Your task to perform on an android device: Clear the cart on costco.com. Add "corsair k70" to the cart on costco.com, then select checkout. Image 0: 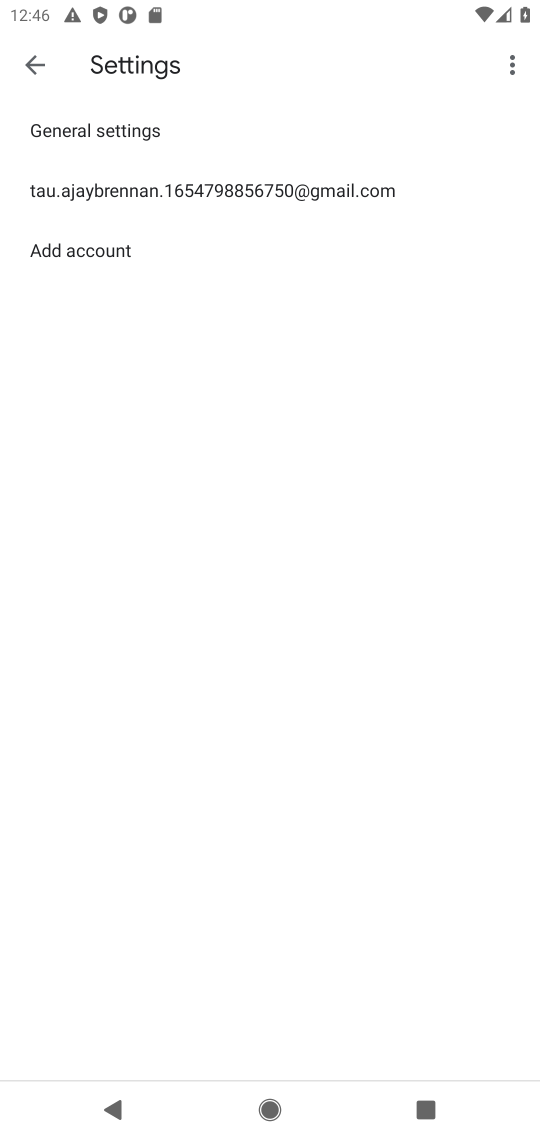
Step 0: press home button
Your task to perform on an android device: Clear the cart on costco.com. Add "corsair k70" to the cart on costco.com, then select checkout. Image 1: 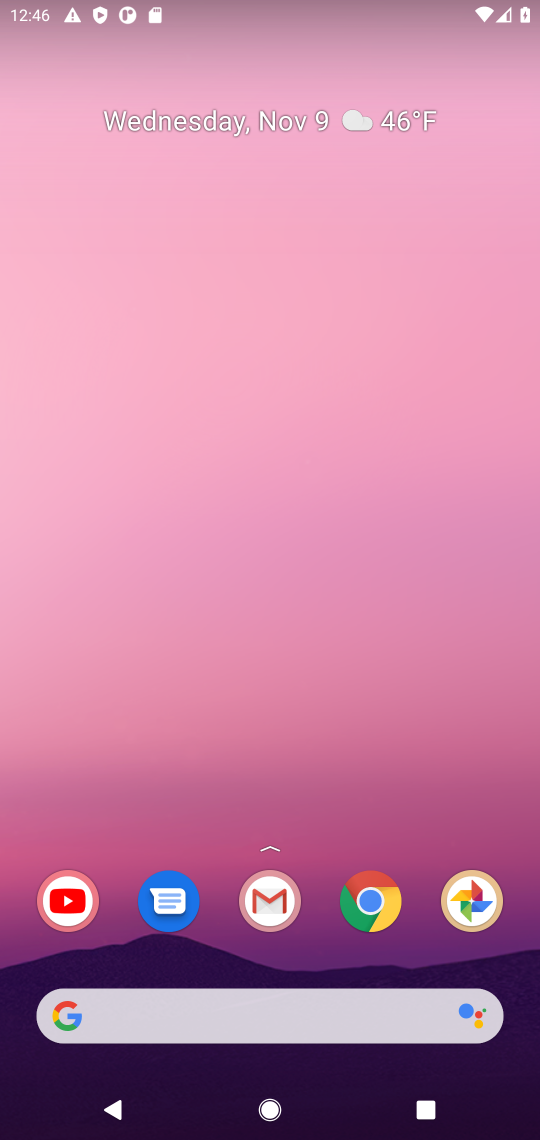
Step 1: click (381, 908)
Your task to perform on an android device: Clear the cart on costco.com. Add "corsair k70" to the cart on costco.com, then select checkout. Image 2: 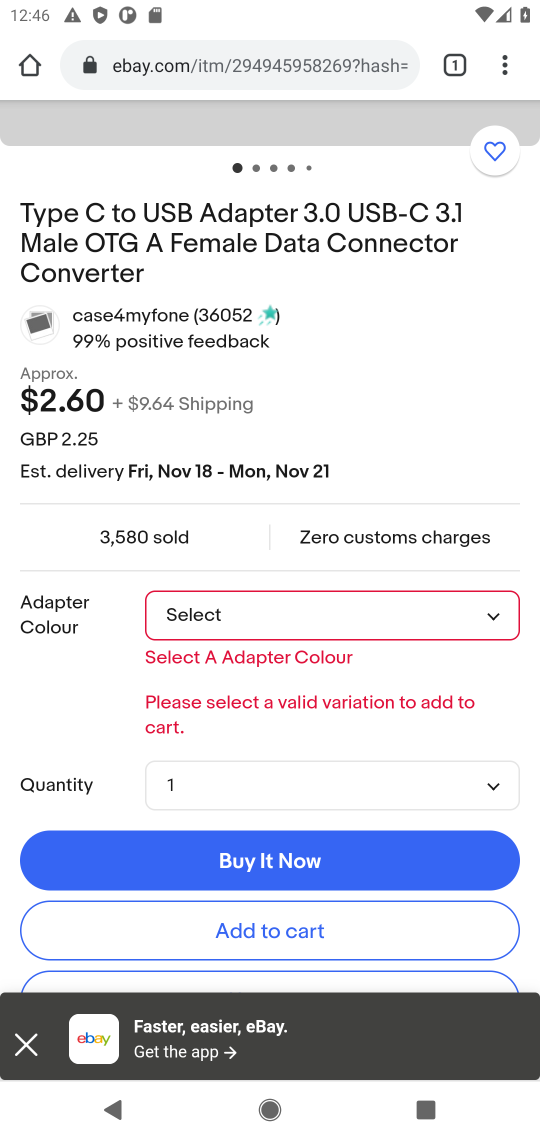
Step 2: click (306, 58)
Your task to perform on an android device: Clear the cart on costco.com. Add "corsair k70" to the cart on costco.com, then select checkout. Image 3: 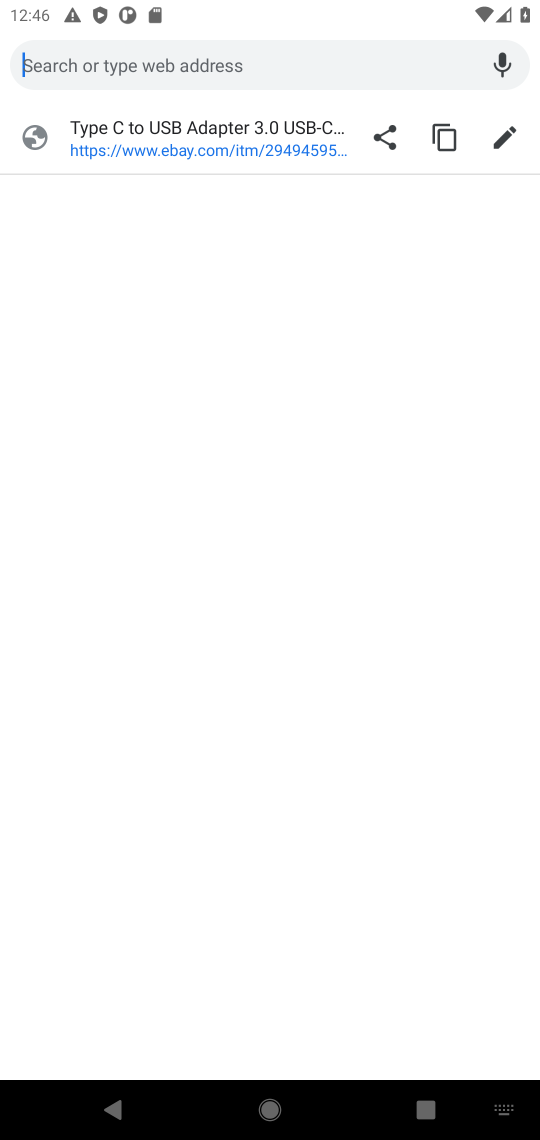
Step 3: type "costco.com"
Your task to perform on an android device: Clear the cart on costco.com. Add "corsair k70" to the cart on costco.com, then select checkout. Image 4: 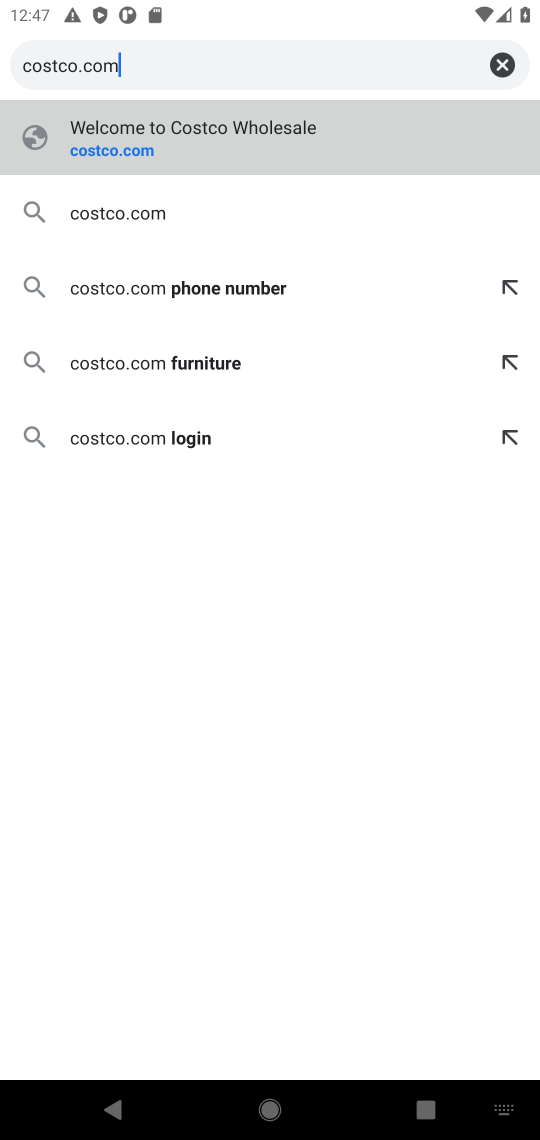
Step 4: click (128, 207)
Your task to perform on an android device: Clear the cart on costco.com. Add "corsair k70" to the cart on costco.com, then select checkout. Image 5: 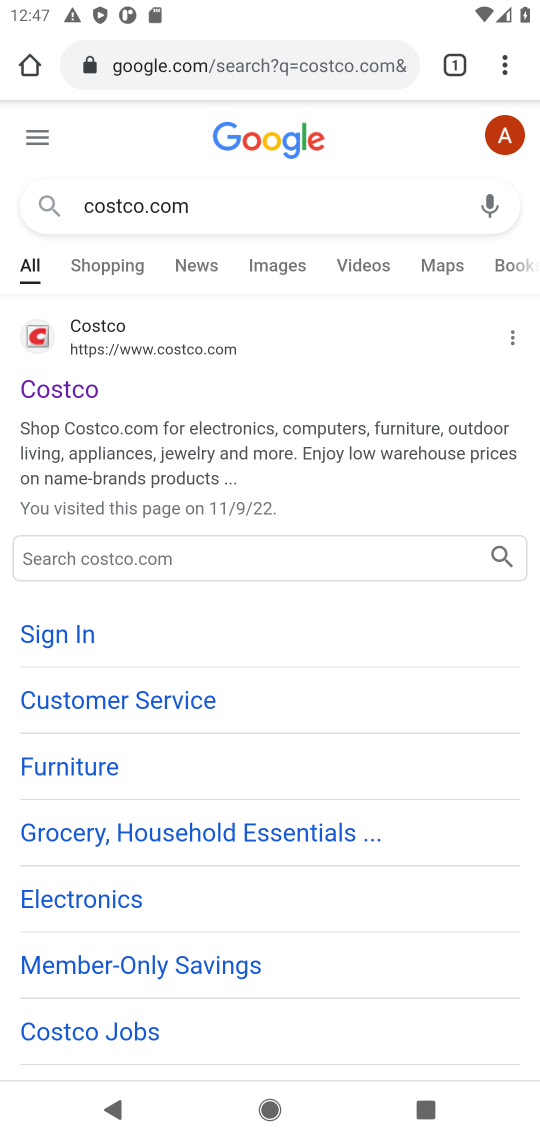
Step 5: click (115, 335)
Your task to perform on an android device: Clear the cart on costco.com. Add "corsair k70" to the cart on costco.com, then select checkout. Image 6: 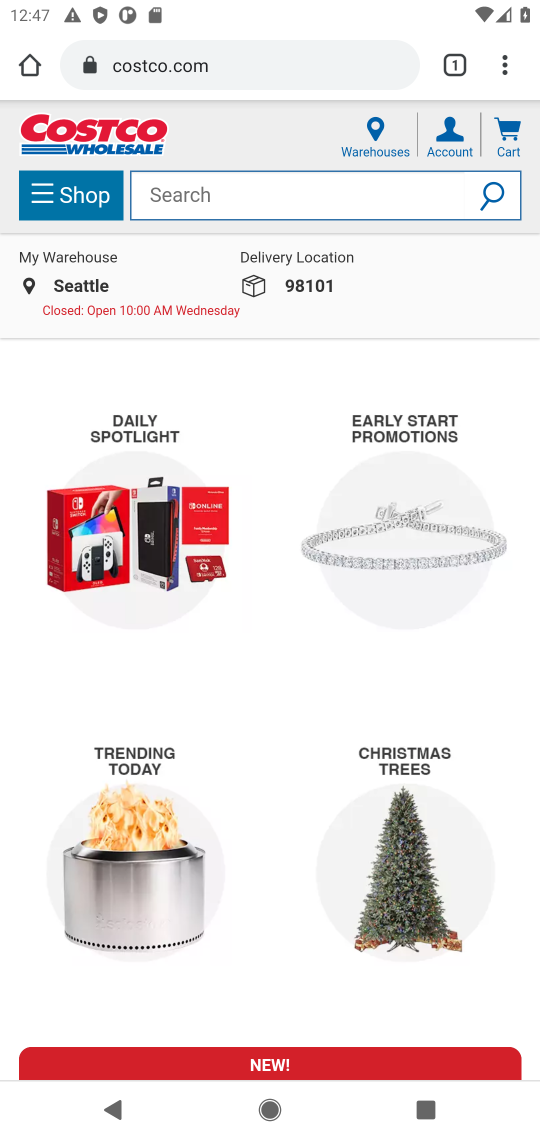
Step 6: click (276, 193)
Your task to perform on an android device: Clear the cart on costco.com. Add "corsair k70" to the cart on costco.com, then select checkout. Image 7: 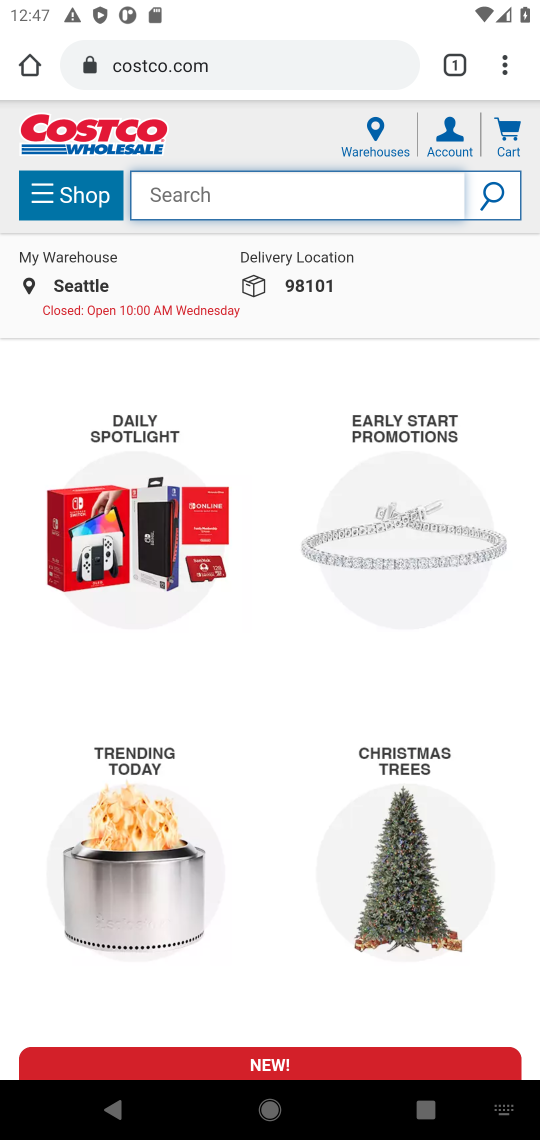
Step 7: type "corsair k70"
Your task to perform on an android device: Clear the cart on costco.com. Add "corsair k70" to the cart on costco.com, then select checkout. Image 8: 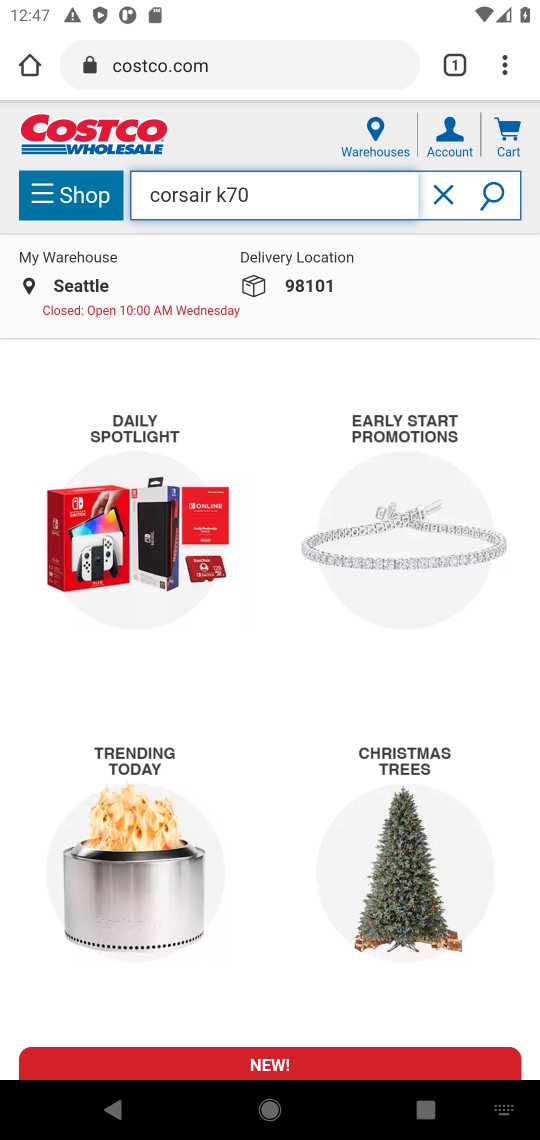
Step 8: click (400, 274)
Your task to perform on an android device: Clear the cart on costco.com. Add "corsair k70" to the cart on costco.com, then select checkout. Image 9: 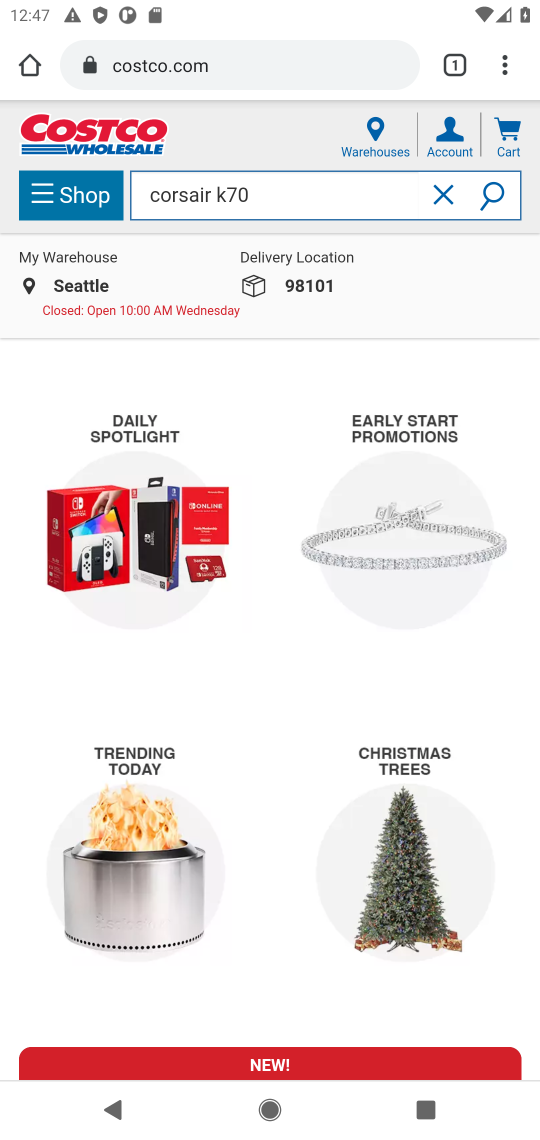
Step 9: click (436, 277)
Your task to perform on an android device: Clear the cart on costco.com. Add "corsair k70" to the cart on costco.com, then select checkout. Image 10: 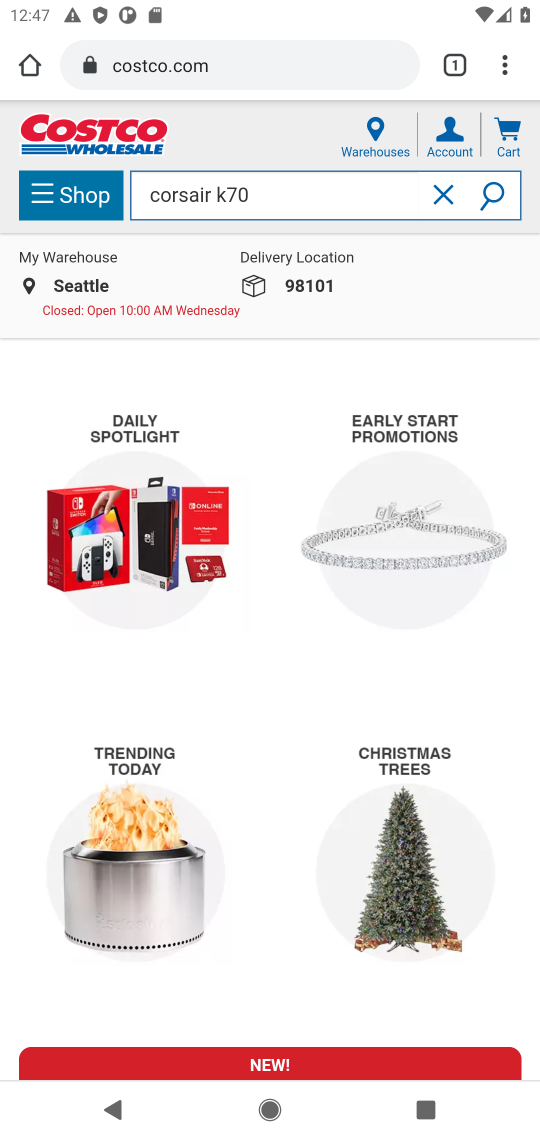
Step 10: task complete